Your task to perform on an android device: open app "Pluto TV - Live TV and Movies" (install if not already installed), go to login, and select forgot password Image 0: 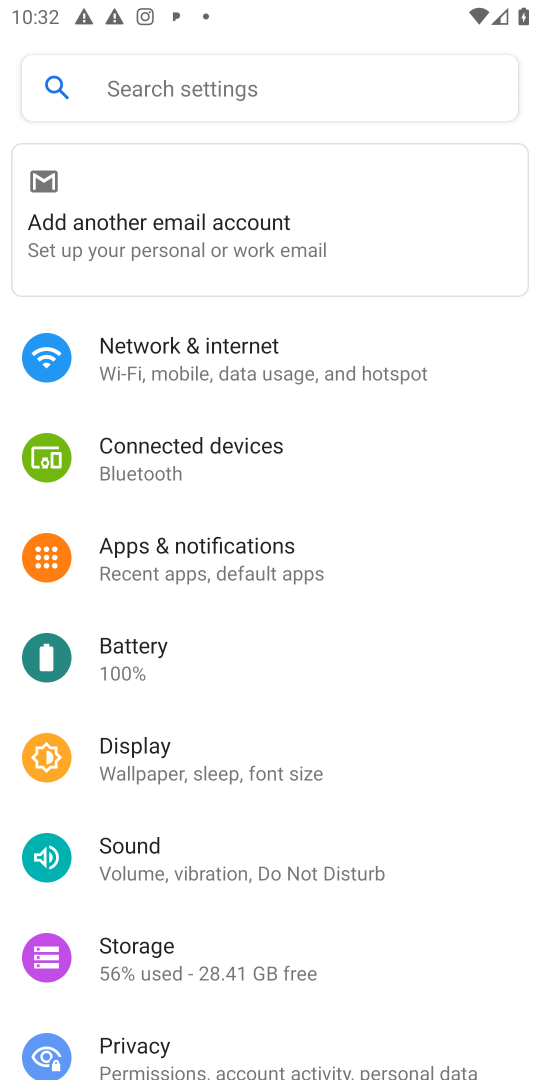
Step 0: press home button
Your task to perform on an android device: open app "Pluto TV - Live TV and Movies" (install if not already installed), go to login, and select forgot password Image 1: 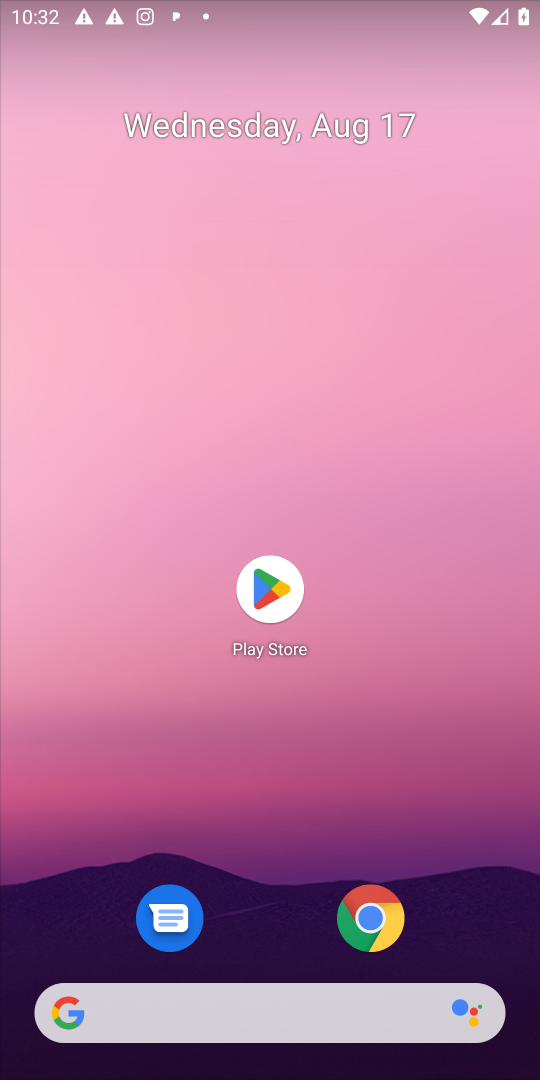
Step 1: click (265, 578)
Your task to perform on an android device: open app "Pluto TV - Live TV and Movies" (install if not already installed), go to login, and select forgot password Image 2: 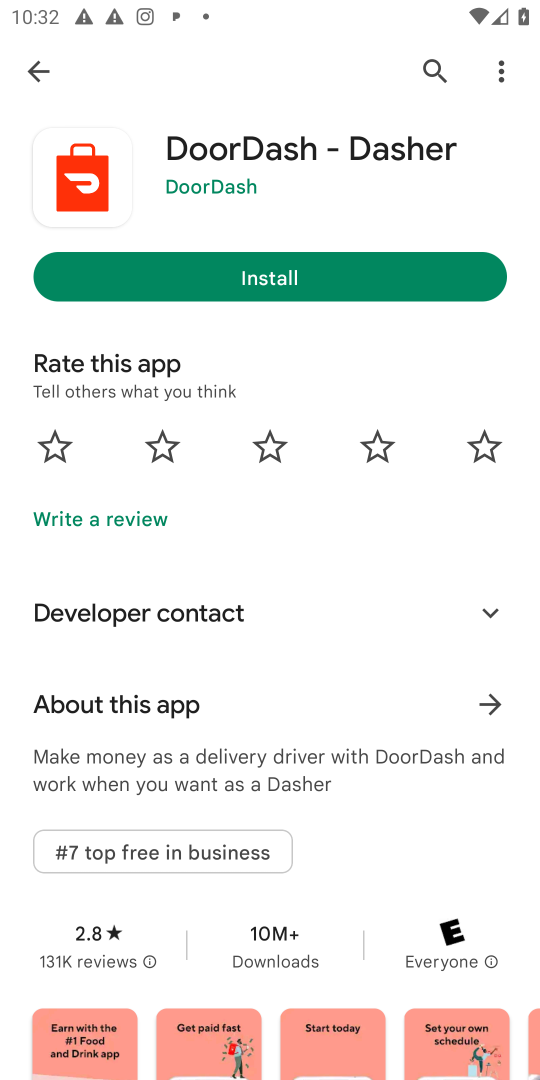
Step 2: click (435, 66)
Your task to perform on an android device: open app "Pluto TV - Live TV and Movies" (install if not already installed), go to login, and select forgot password Image 3: 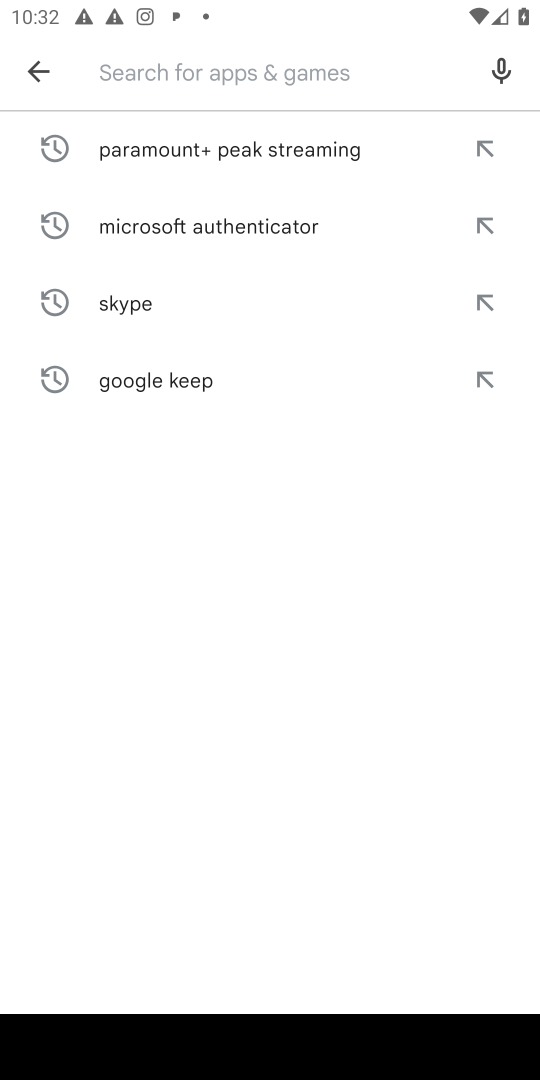
Step 3: type "Pluto TV - Live TV and Movies"
Your task to perform on an android device: open app "Pluto TV - Live TV and Movies" (install if not already installed), go to login, and select forgot password Image 4: 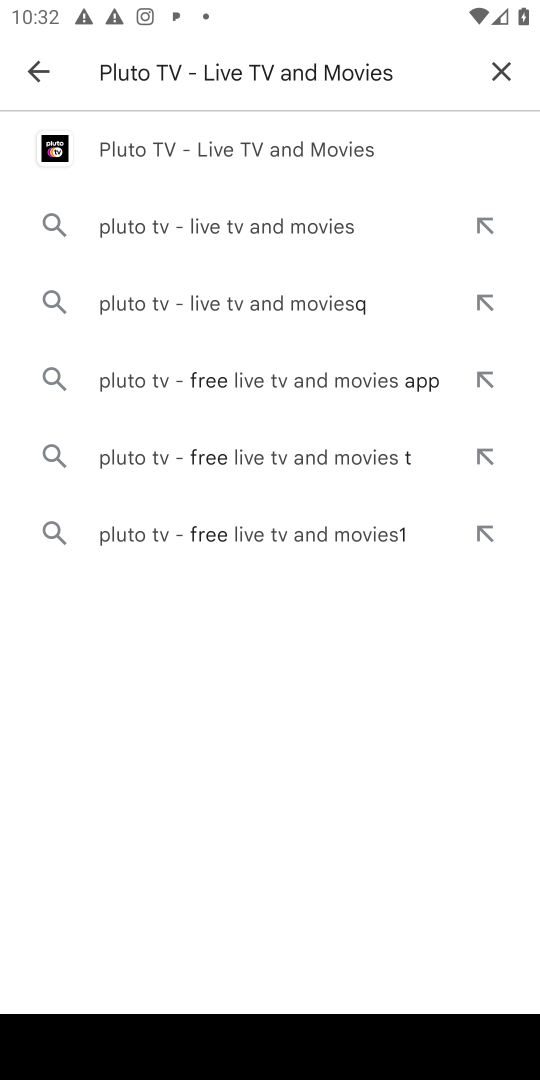
Step 4: click (264, 152)
Your task to perform on an android device: open app "Pluto TV - Live TV and Movies" (install if not already installed), go to login, and select forgot password Image 5: 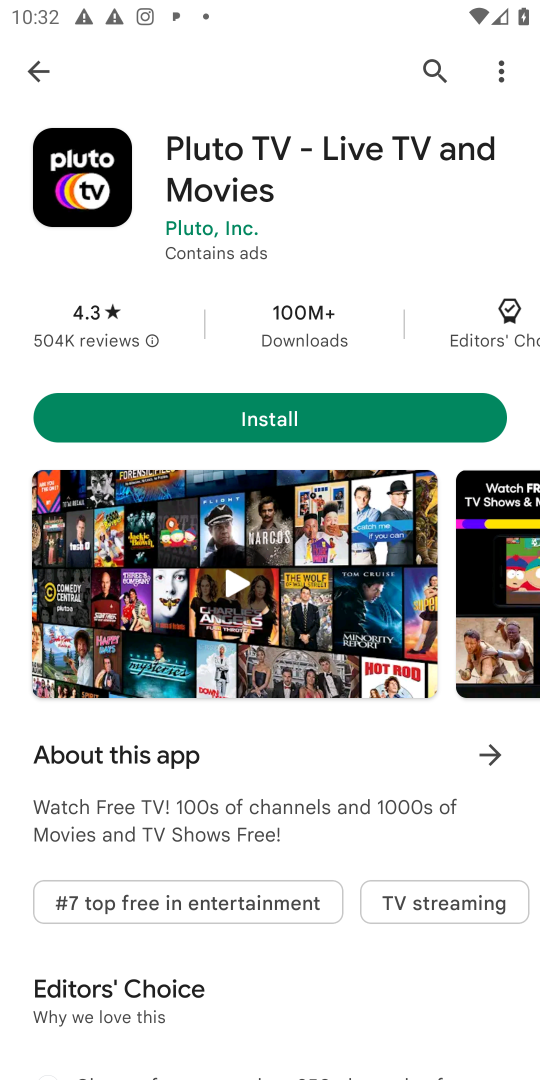
Step 5: click (321, 414)
Your task to perform on an android device: open app "Pluto TV - Live TV and Movies" (install if not already installed), go to login, and select forgot password Image 6: 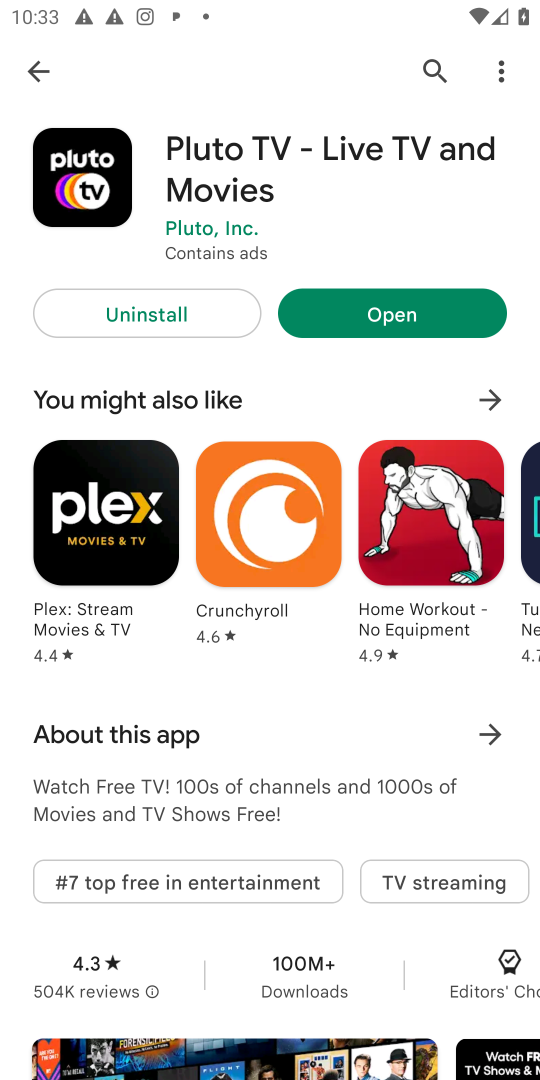
Step 6: click (385, 311)
Your task to perform on an android device: open app "Pluto TV - Live TV and Movies" (install if not already installed), go to login, and select forgot password Image 7: 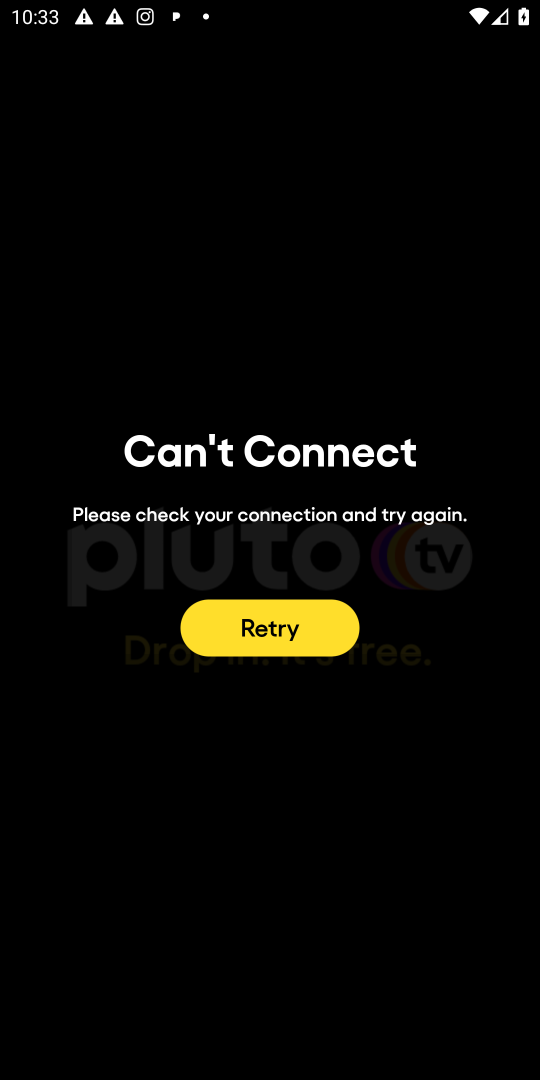
Step 7: click (295, 638)
Your task to perform on an android device: open app "Pluto TV - Live TV and Movies" (install if not already installed), go to login, and select forgot password Image 8: 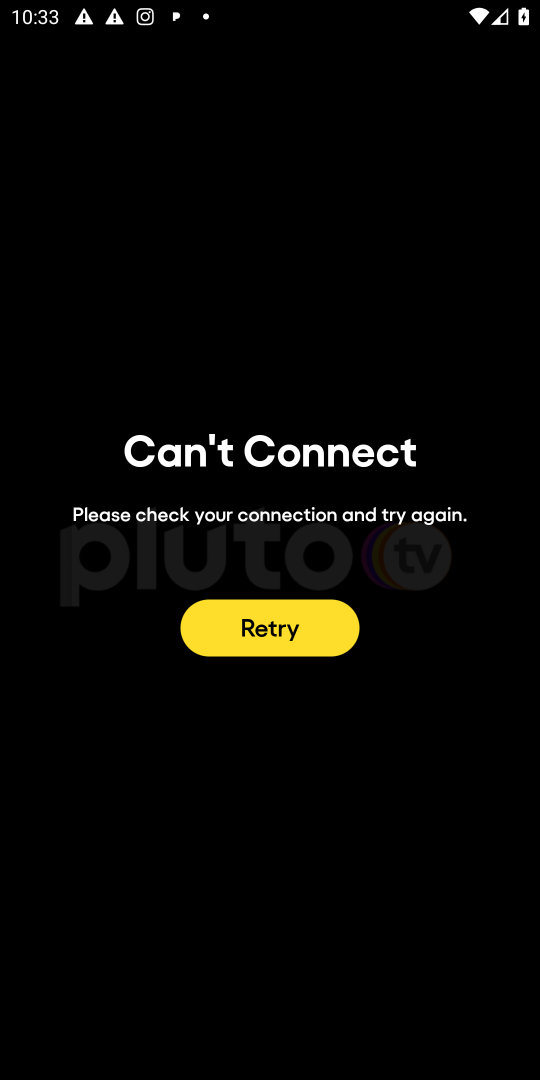
Step 8: task complete